Your task to perform on an android device: manage bookmarks in the chrome app Image 0: 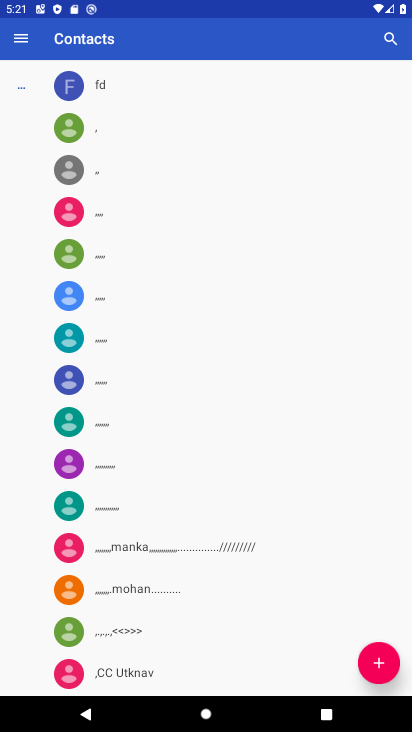
Step 0: press home button
Your task to perform on an android device: manage bookmarks in the chrome app Image 1: 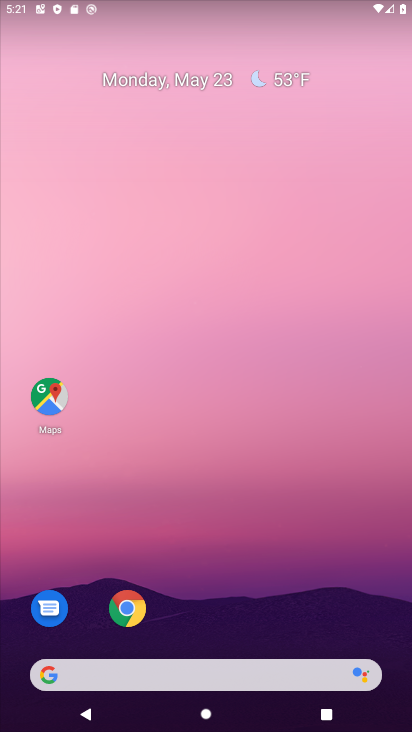
Step 1: click (135, 610)
Your task to perform on an android device: manage bookmarks in the chrome app Image 2: 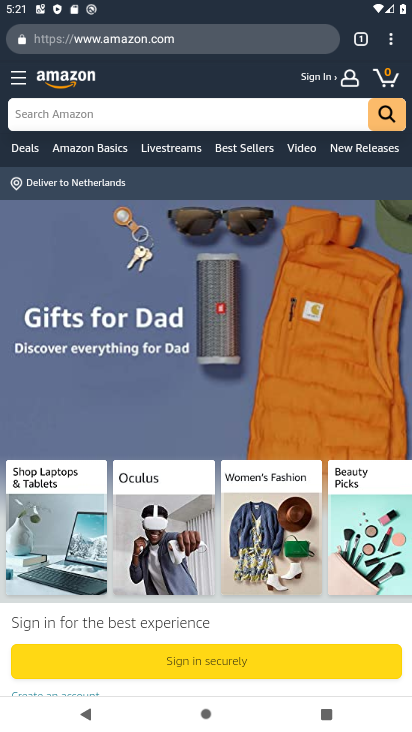
Step 2: click (387, 28)
Your task to perform on an android device: manage bookmarks in the chrome app Image 3: 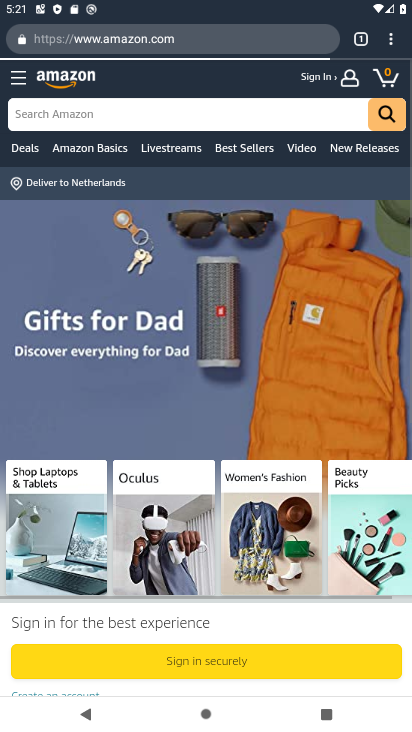
Step 3: click (384, 44)
Your task to perform on an android device: manage bookmarks in the chrome app Image 4: 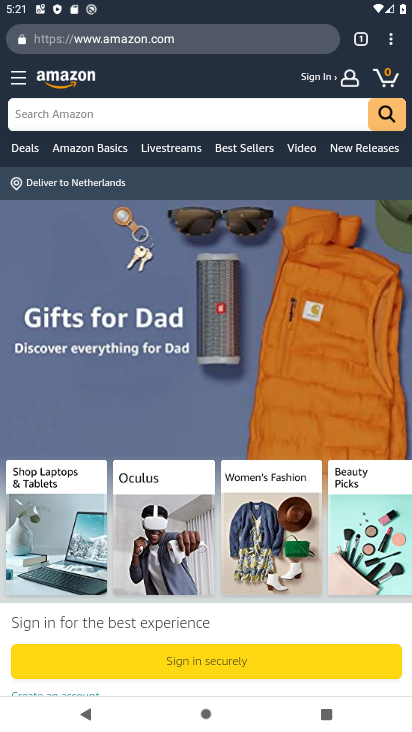
Step 4: click (391, 40)
Your task to perform on an android device: manage bookmarks in the chrome app Image 5: 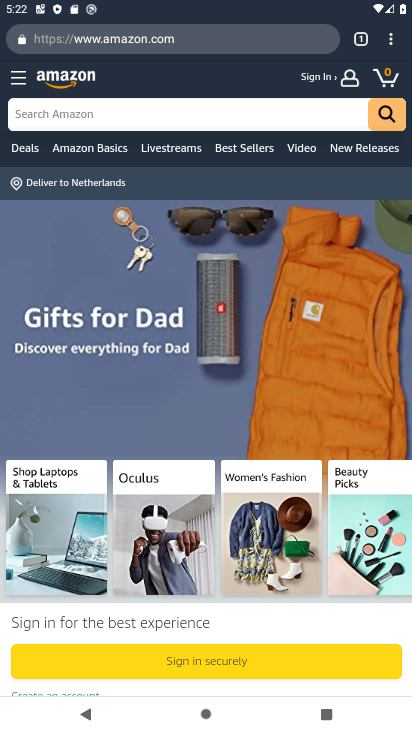
Step 5: click (383, 31)
Your task to perform on an android device: manage bookmarks in the chrome app Image 6: 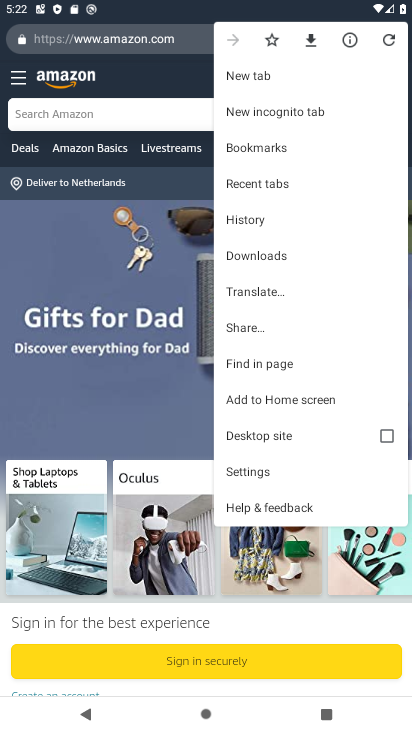
Step 6: click (228, 151)
Your task to perform on an android device: manage bookmarks in the chrome app Image 7: 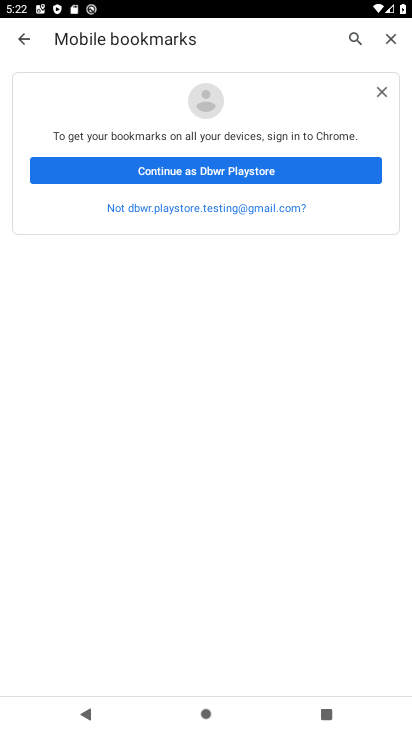
Step 7: click (385, 85)
Your task to perform on an android device: manage bookmarks in the chrome app Image 8: 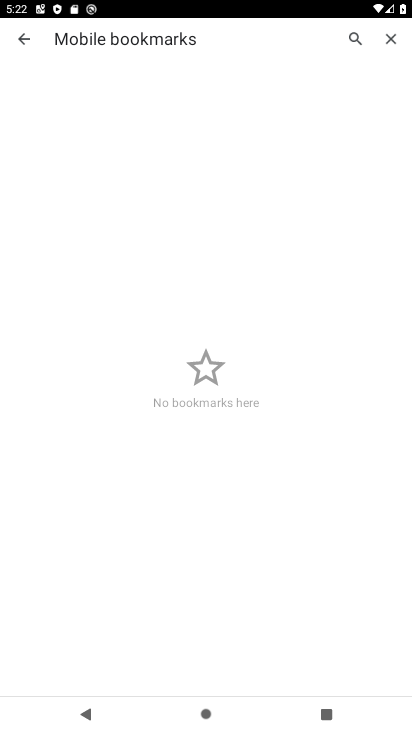
Step 8: task complete